Your task to perform on an android device: empty trash in google photos Image 0: 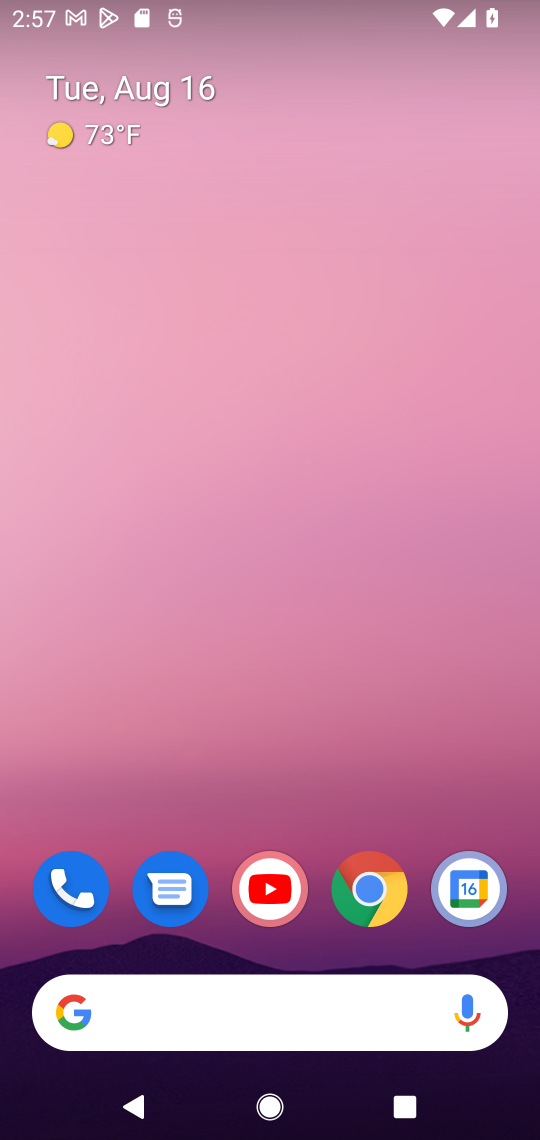
Step 0: drag from (382, 737) to (325, 71)
Your task to perform on an android device: empty trash in google photos Image 1: 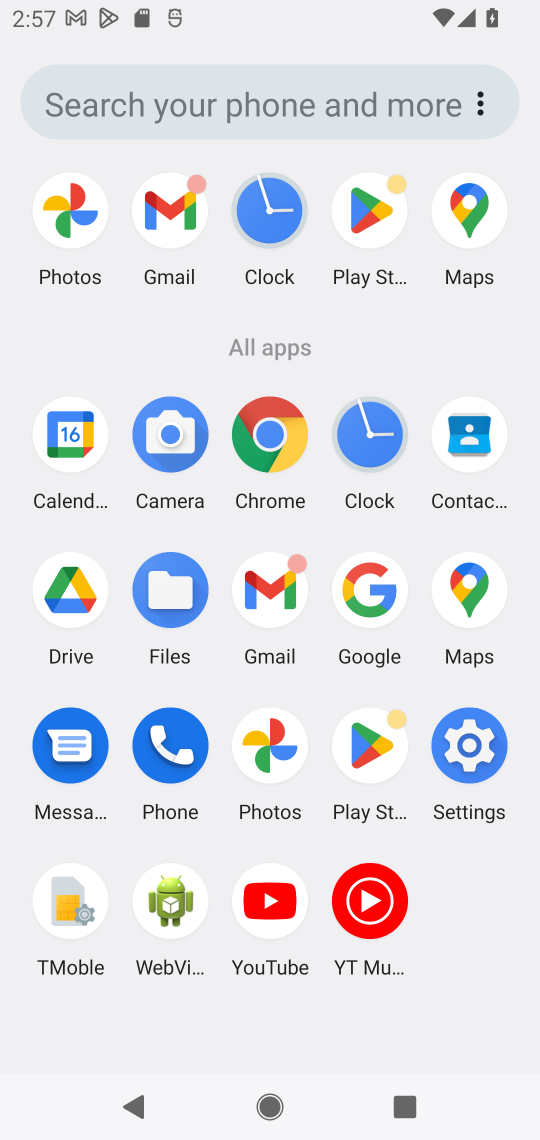
Step 1: click (76, 223)
Your task to perform on an android device: empty trash in google photos Image 2: 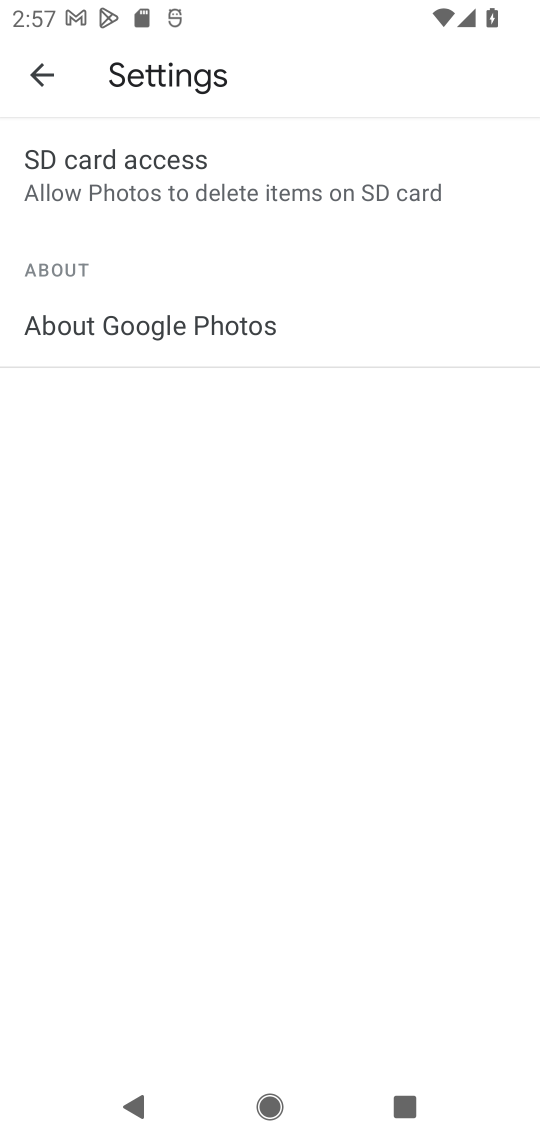
Step 2: click (38, 71)
Your task to perform on an android device: empty trash in google photos Image 3: 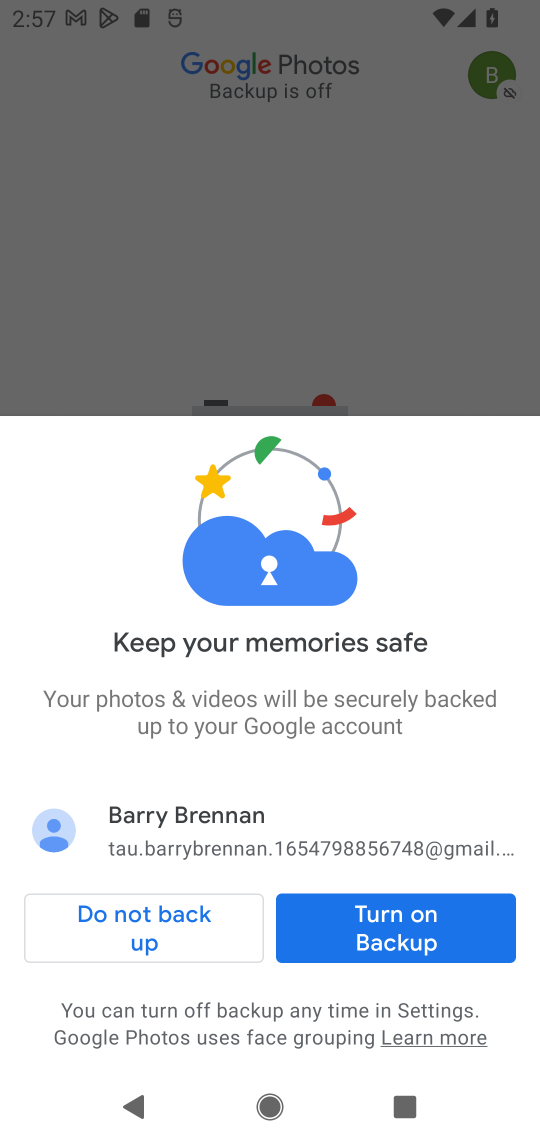
Step 3: click (196, 920)
Your task to perform on an android device: empty trash in google photos Image 4: 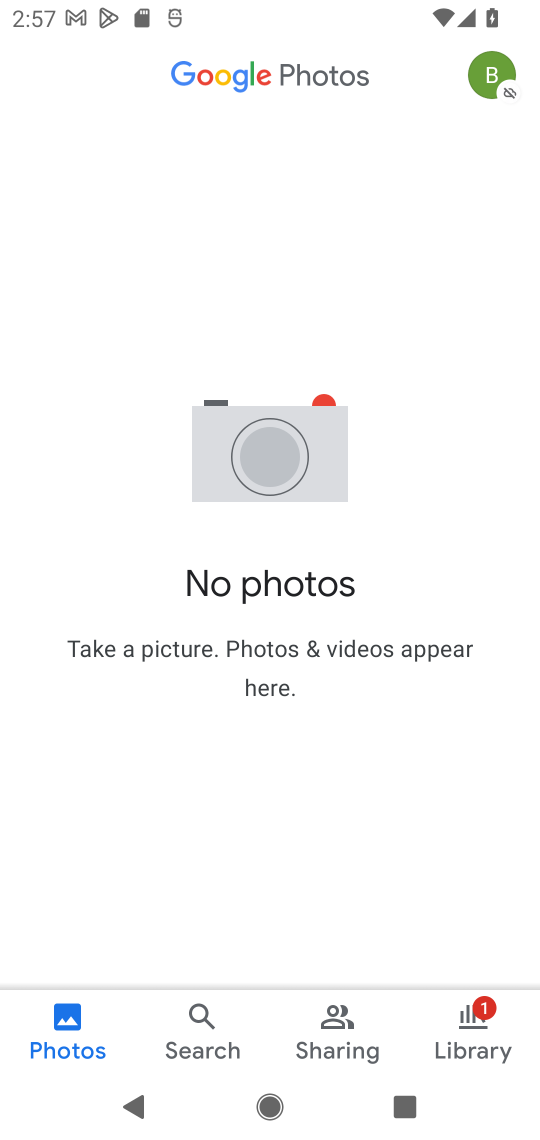
Step 4: task complete